Your task to perform on an android device: Open Android settings Image 0: 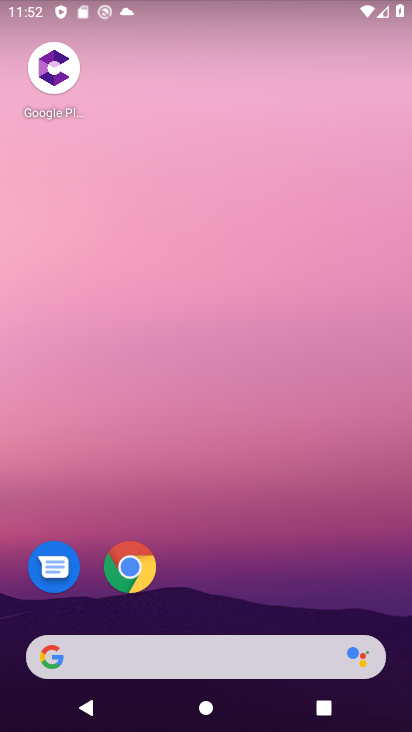
Step 0: drag from (209, 646) to (235, 195)
Your task to perform on an android device: Open Android settings Image 1: 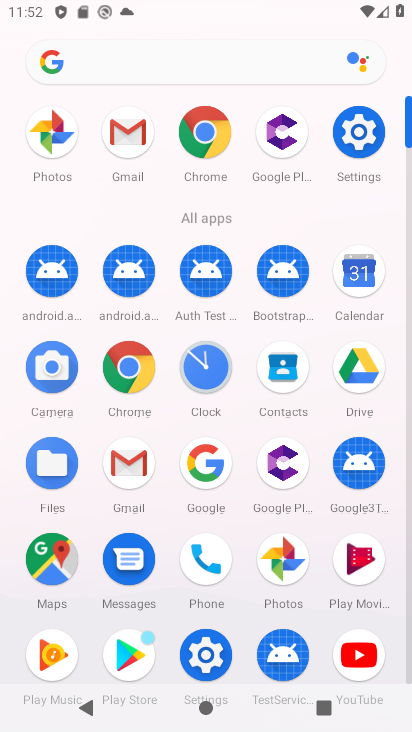
Step 1: click (361, 145)
Your task to perform on an android device: Open Android settings Image 2: 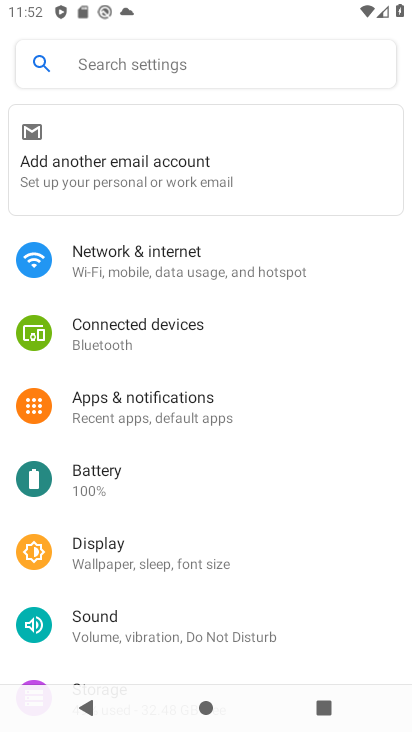
Step 2: task complete